Your task to perform on an android device: Go to network settings Image 0: 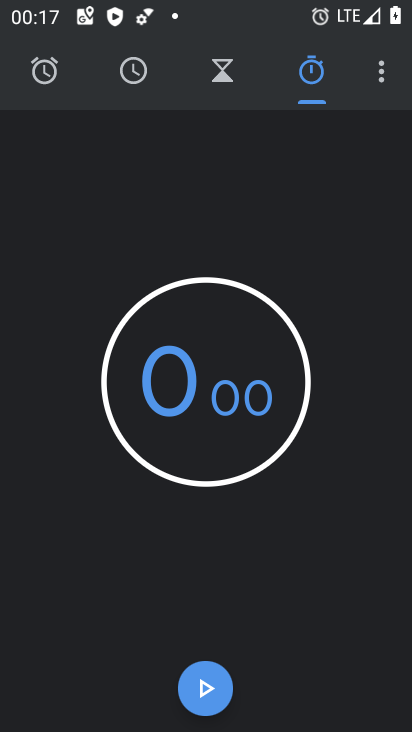
Step 0: press home button
Your task to perform on an android device: Go to network settings Image 1: 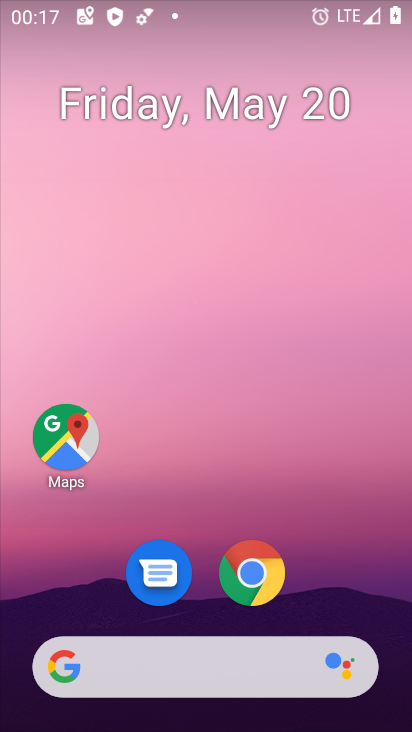
Step 1: drag from (206, 617) to (216, 163)
Your task to perform on an android device: Go to network settings Image 2: 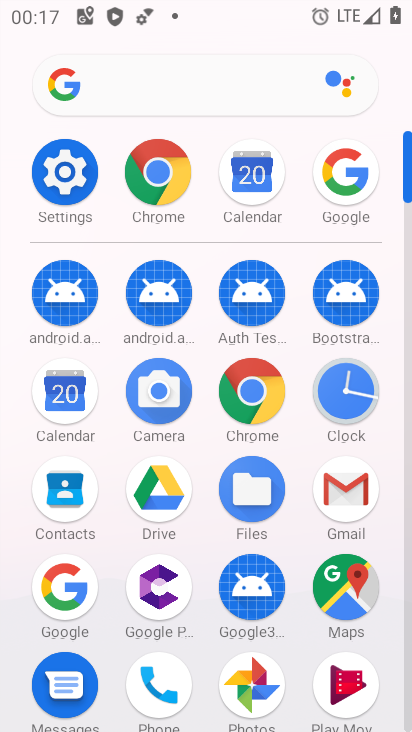
Step 2: click (64, 189)
Your task to perform on an android device: Go to network settings Image 3: 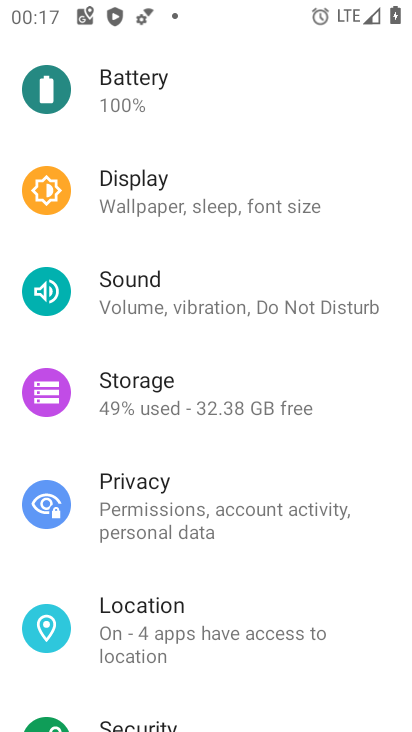
Step 3: drag from (212, 176) to (236, 547)
Your task to perform on an android device: Go to network settings Image 4: 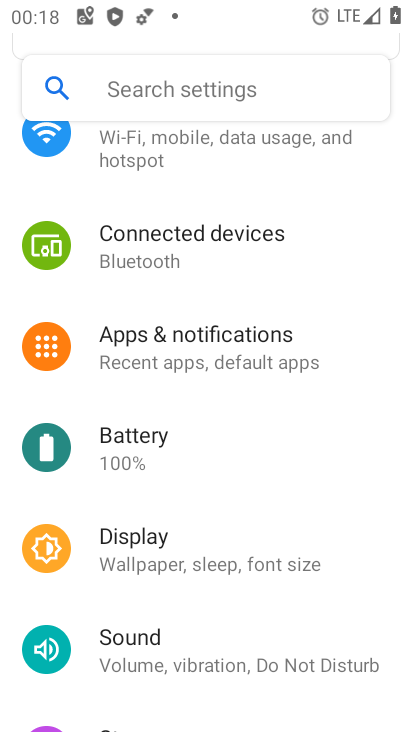
Step 4: drag from (222, 229) to (263, 498)
Your task to perform on an android device: Go to network settings Image 5: 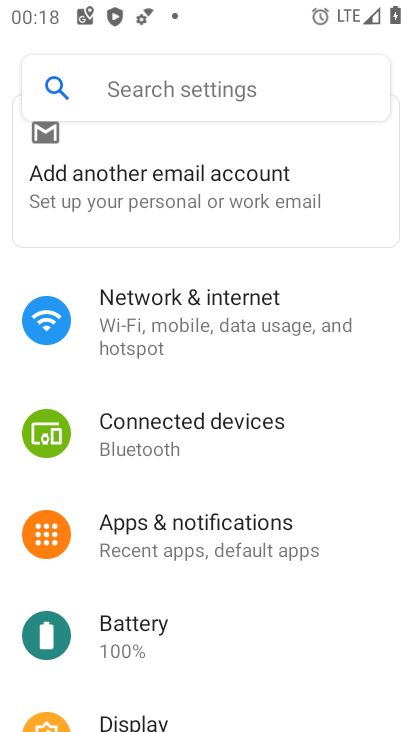
Step 5: drag from (244, 638) to (247, 406)
Your task to perform on an android device: Go to network settings Image 6: 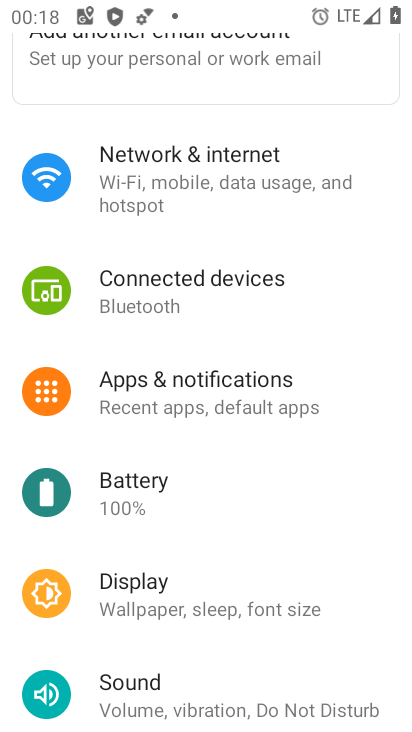
Step 6: click (199, 192)
Your task to perform on an android device: Go to network settings Image 7: 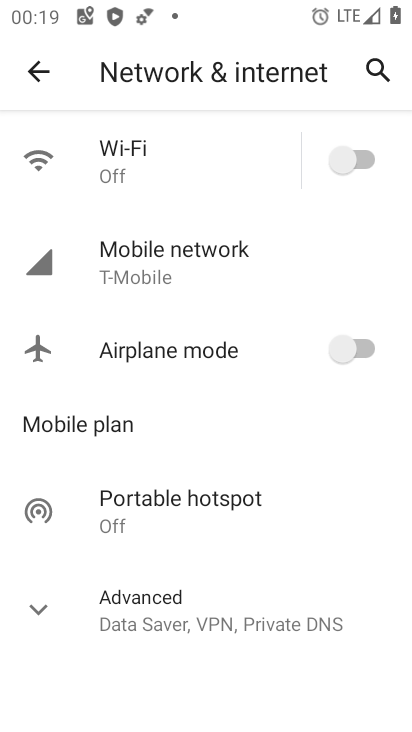
Step 7: click (178, 276)
Your task to perform on an android device: Go to network settings Image 8: 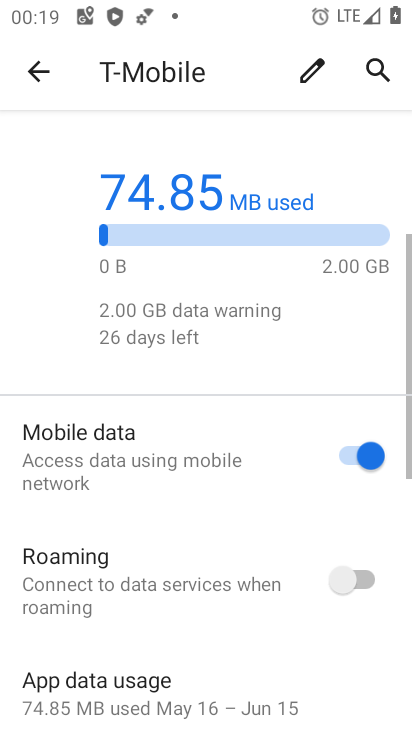
Step 8: task complete